Your task to perform on an android device: change notification settings in the gmail app Image 0: 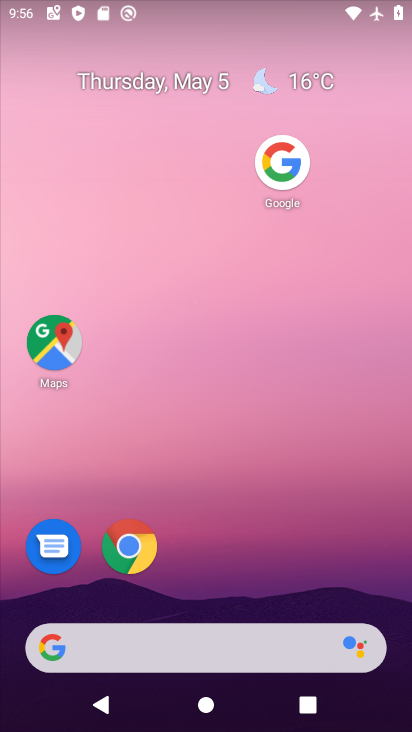
Step 0: drag from (154, 641) to (264, 190)
Your task to perform on an android device: change notification settings in the gmail app Image 1: 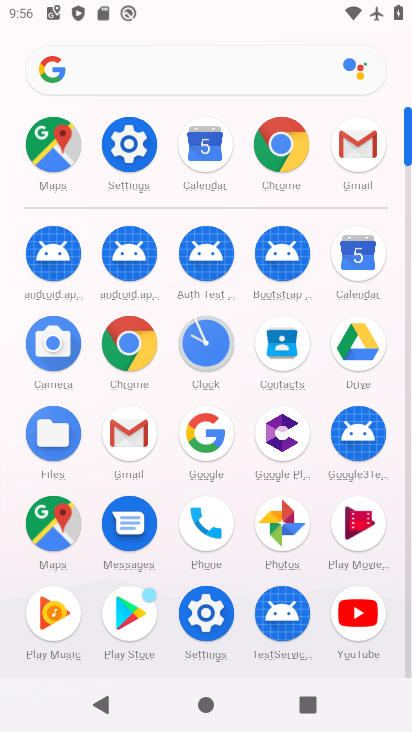
Step 1: click (360, 148)
Your task to perform on an android device: change notification settings in the gmail app Image 2: 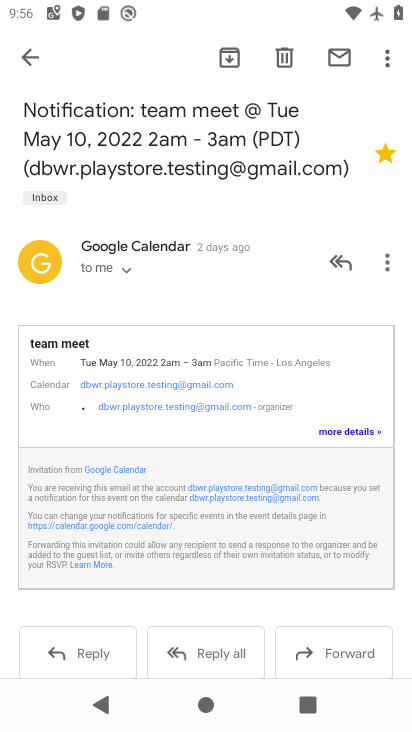
Step 2: click (35, 57)
Your task to perform on an android device: change notification settings in the gmail app Image 3: 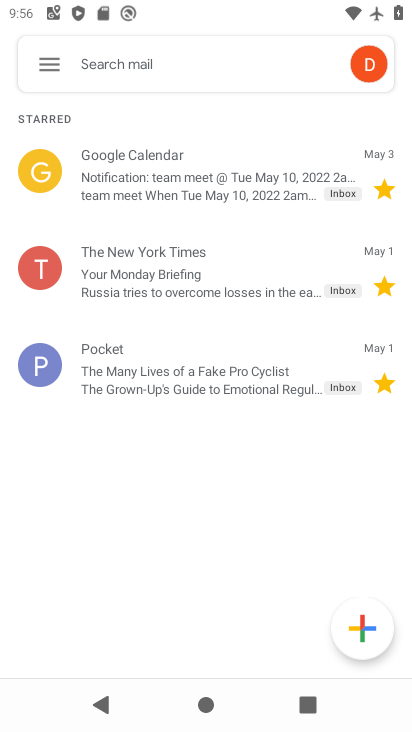
Step 3: click (52, 66)
Your task to perform on an android device: change notification settings in the gmail app Image 4: 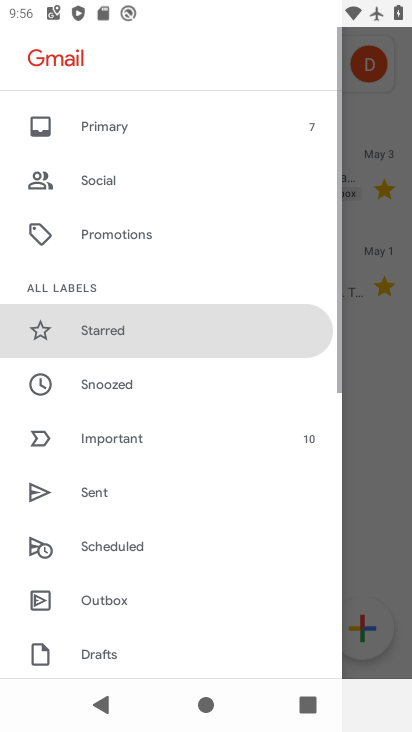
Step 4: drag from (135, 617) to (252, 112)
Your task to perform on an android device: change notification settings in the gmail app Image 5: 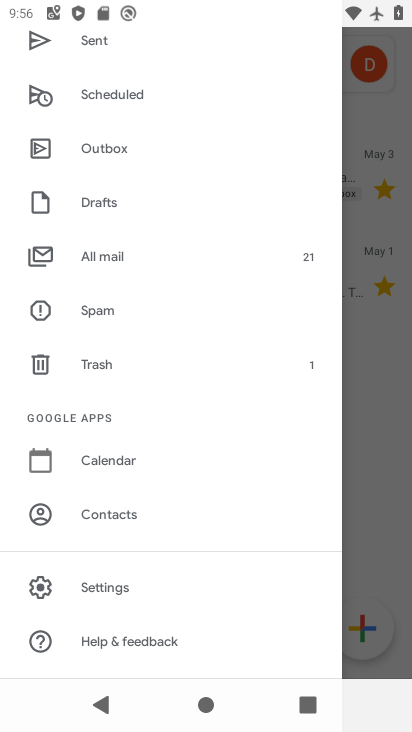
Step 5: click (116, 582)
Your task to perform on an android device: change notification settings in the gmail app Image 6: 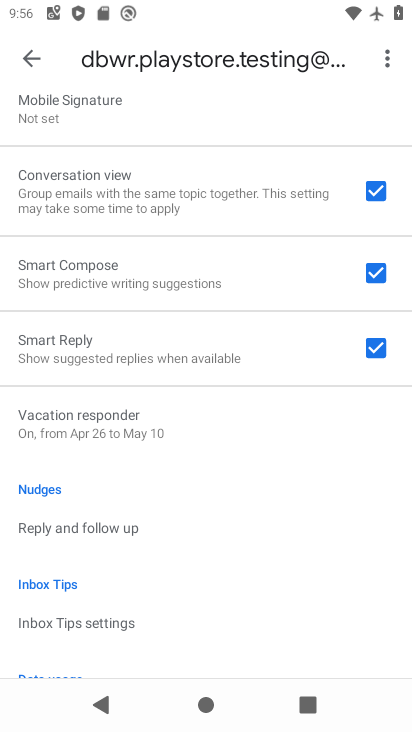
Step 6: drag from (233, 190) to (205, 627)
Your task to perform on an android device: change notification settings in the gmail app Image 7: 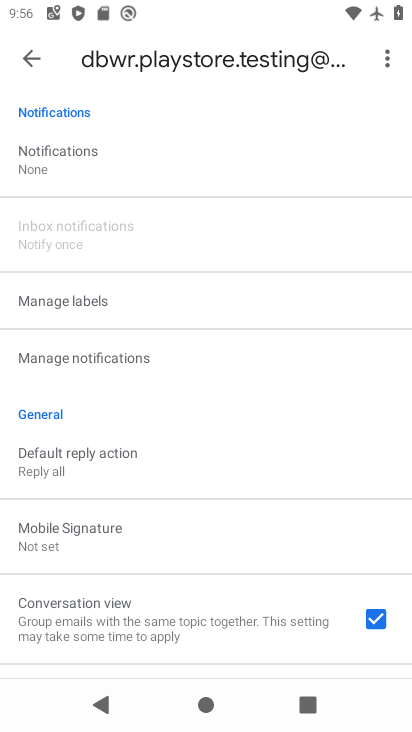
Step 7: click (70, 157)
Your task to perform on an android device: change notification settings in the gmail app Image 8: 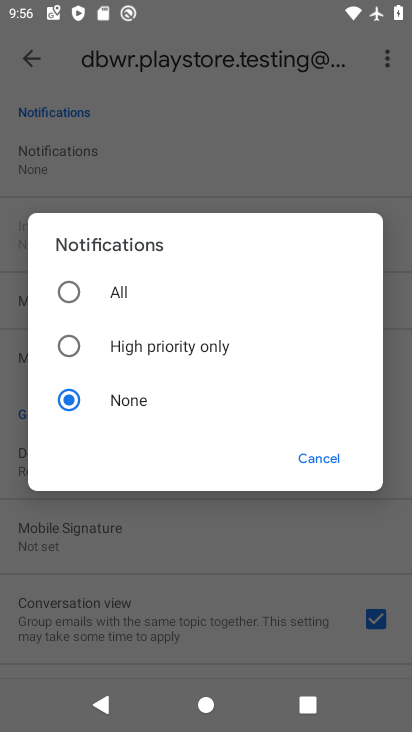
Step 8: click (72, 292)
Your task to perform on an android device: change notification settings in the gmail app Image 9: 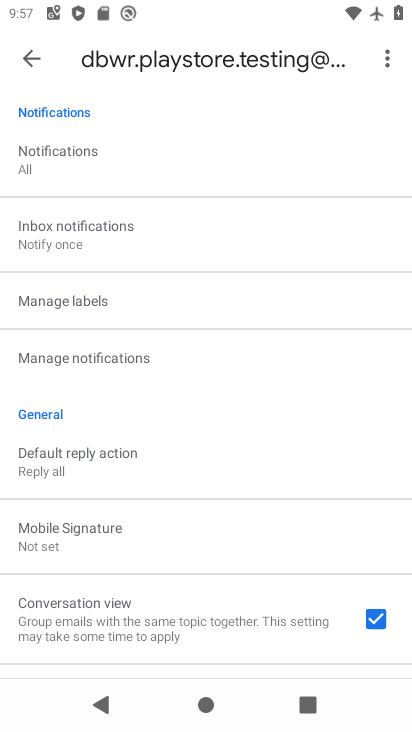
Step 9: task complete